Your task to perform on an android device: Open calendar and show me the first week of next month Image 0: 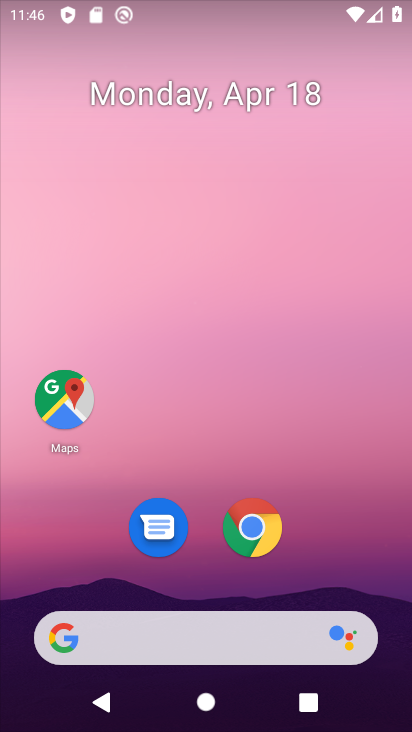
Step 0: drag from (366, 386) to (406, 185)
Your task to perform on an android device: Open calendar and show me the first week of next month Image 1: 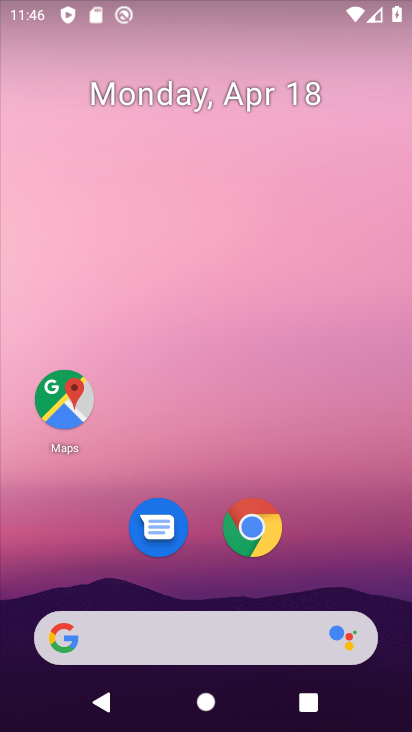
Step 1: drag from (335, 488) to (393, 25)
Your task to perform on an android device: Open calendar and show me the first week of next month Image 2: 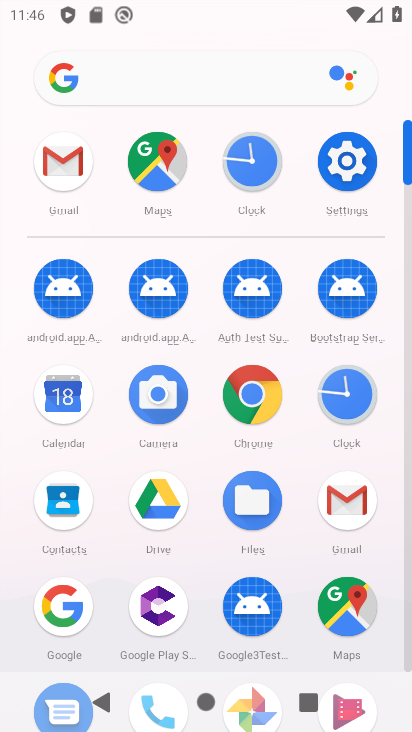
Step 2: click (58, 399)
Your task to perform on an android device: Open calendar and show me the first week of next month Image 3: 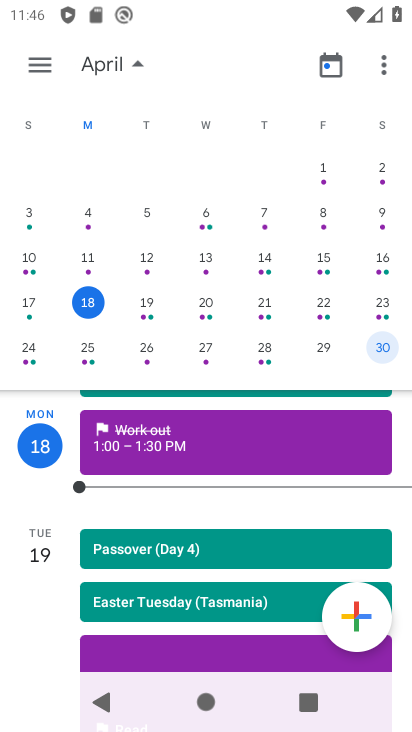
Step 3: drag from (351, 268) to (49, 283)
Your task to perform on an android device: Open calendar and show me the first week of next month Image 4: 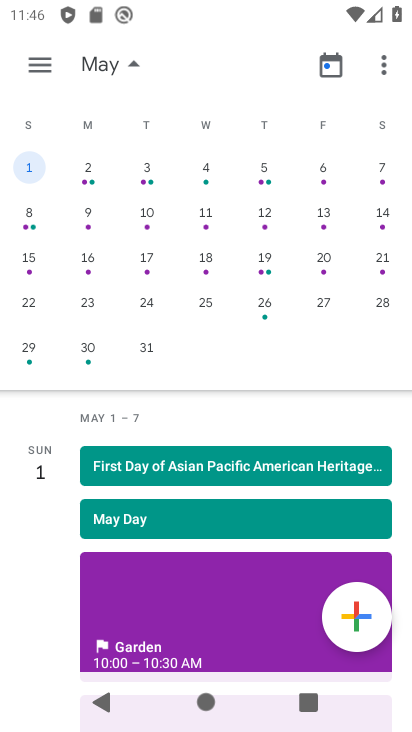
Step 4: click (30, 172)
Your task to perform on an android device: Open calendar and show me the first week of next month Image 5: 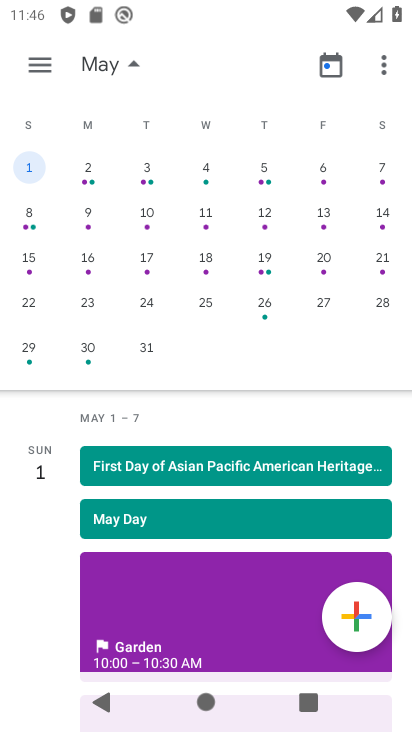
Step 5: task complete